Your task to perform on an android device: turn off location Image 0: 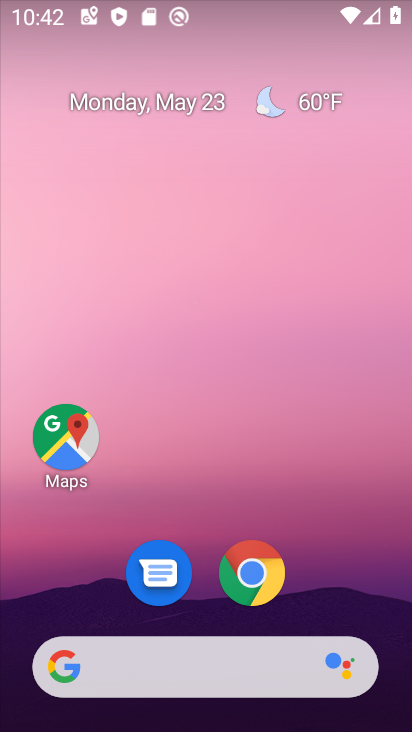
Step 0: drag from (320, 523) to (251, 30)
Your task to perform on an android device: turn off location Image 1: 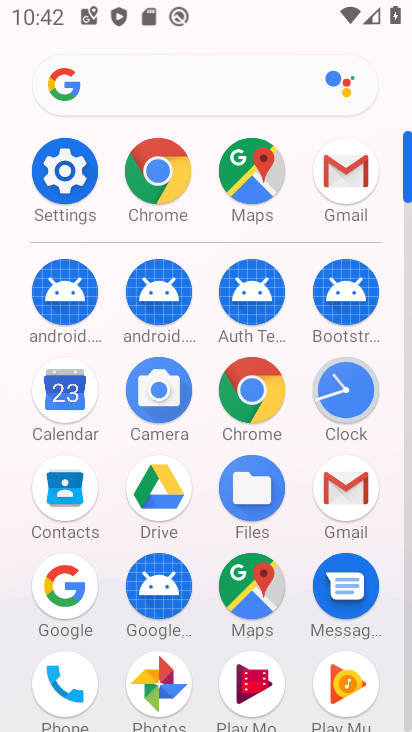
Step 1: click (69, 168)
Your task to perform on an android device: turn off location Image 2: 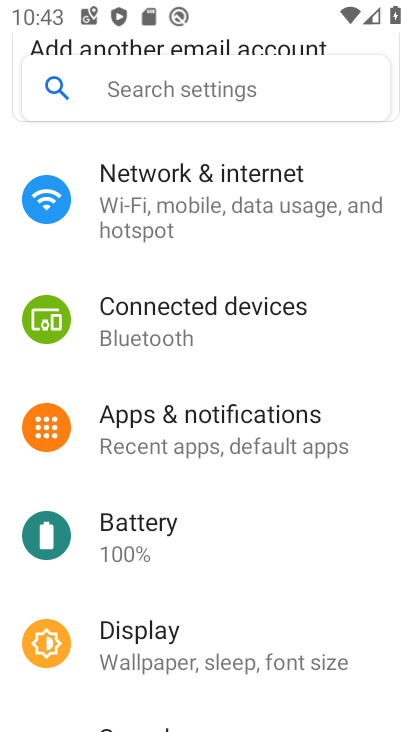
Step 2: drag from (265, 539) to (233, 162)
Your task to perform on an android device: turn off location Image 3: 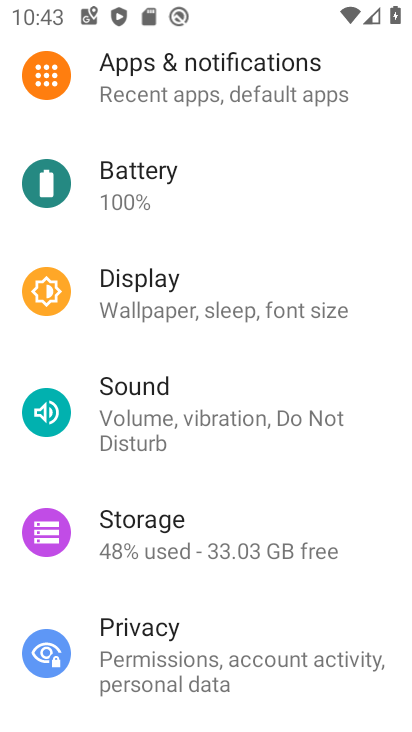
Step 3: drag from (239, 607) to (235, 103)
Your task to perform on an android device: turn off location Image 4: 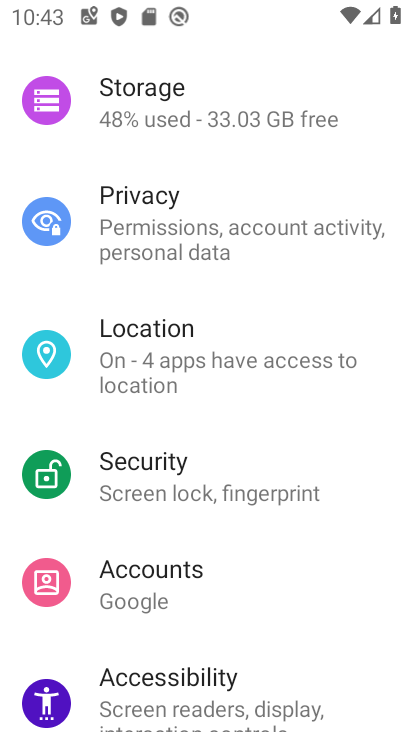
Step 4: click (199, 331)
Your task to perform on an android device: turn off location Image 5: 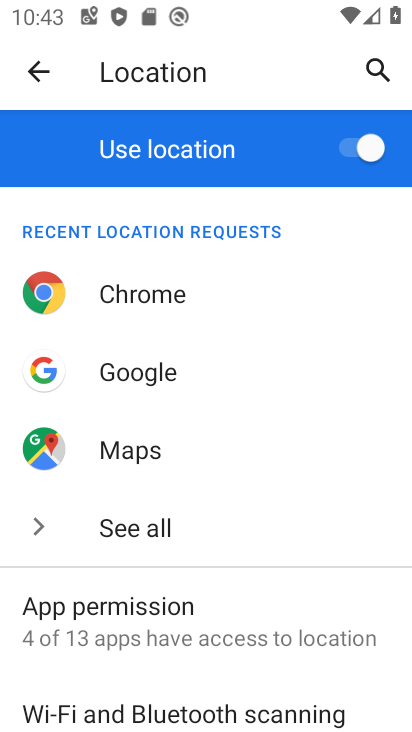
Step 5: drag from (216, 569) to (233, 134)
Your task to perform on an android device: turn off location Image 6: 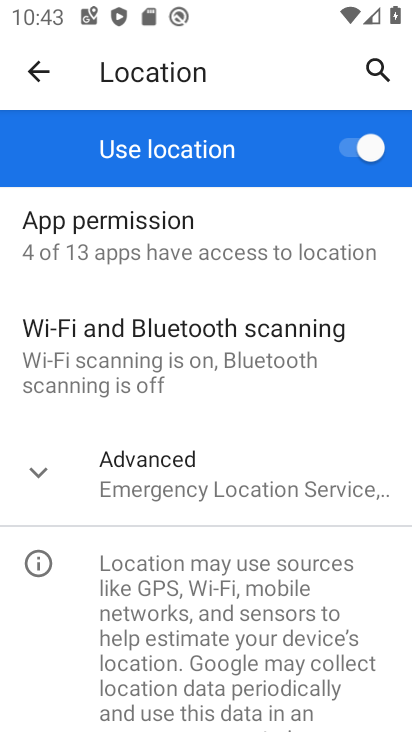
Step 6: click (358, 145)
Your task to perform on an android device: turn off location Image 7: 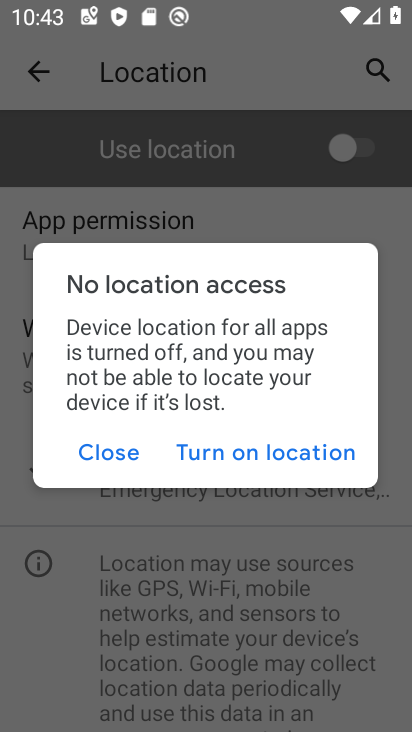
Step 7: click (104, 447)
Your task to perform on an android device: turn off location Image 8: 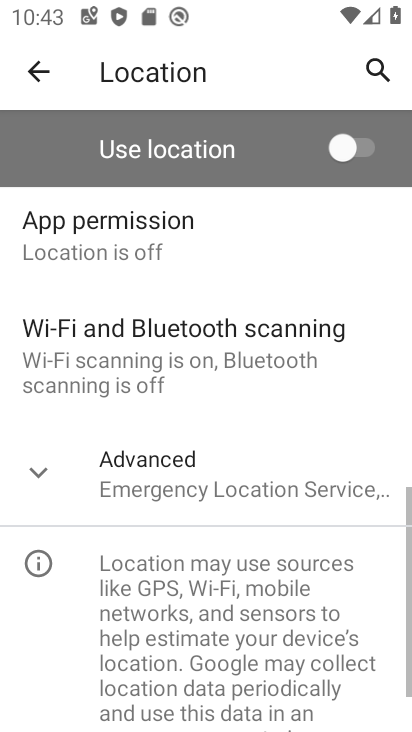
Step 8: task complete